Your task to perform on an android device: Search for alienware area 51 on amazon.com, select the first entry, add it to the cart, then select checkout. Image 0: 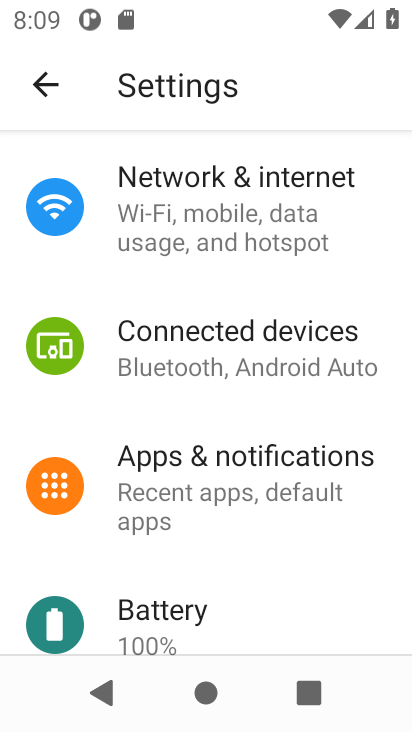
Step 0: press home button
Your task to perform on an android device: Search for alienware area 51 on amazon.com, select the first entry, add it to the cart, then select checkout. Image 1: 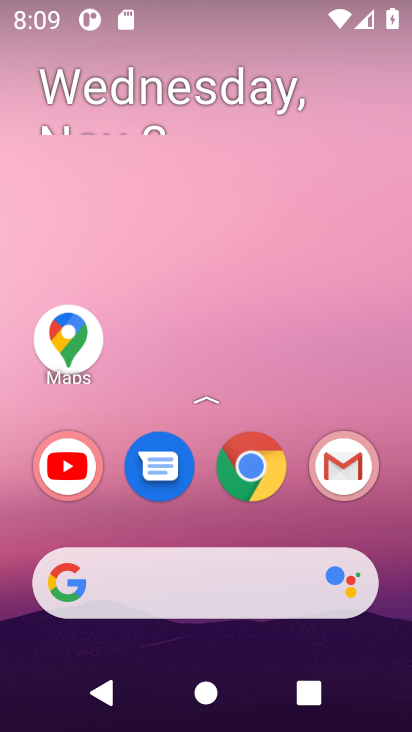
Step 1: click (220, 574)
Your task to perform on an android device: Search for alienware area 51 on amazon.com, select the first entry, add it to the cart, then select checkout. Image 2: 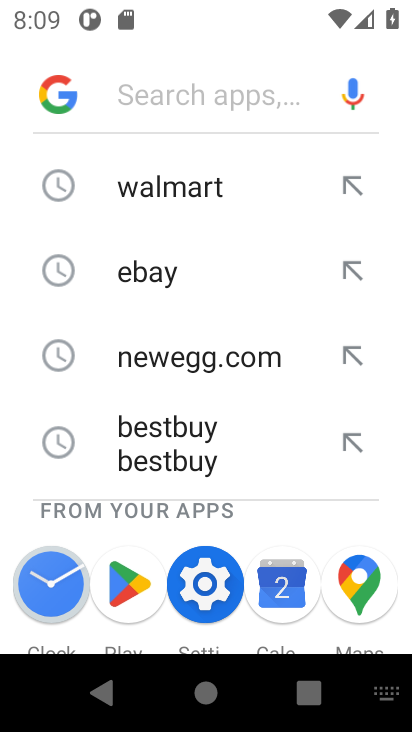
Step 2: type "amazon.com"
Your task to perform on an android device: Search for alienware area 51 on amazon.com, select the first entry, add it to the cart, then select checkout. Image 3: 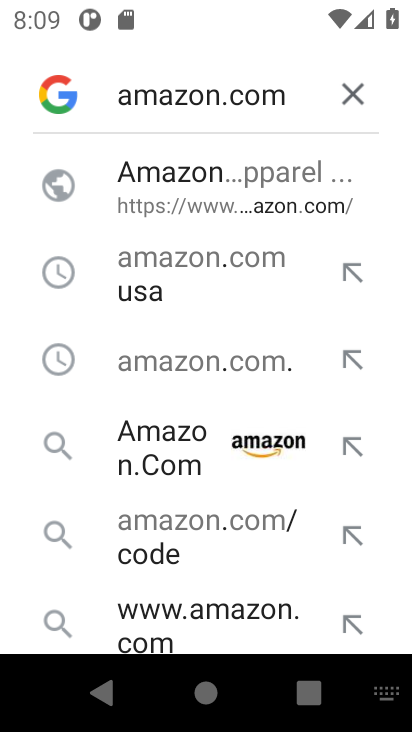
Step 3: type ""
Your task to perform on an android device: Search for alienware area 51 on amazon.com, select the first entry, add it to the cart, then select checkout. Image 4: 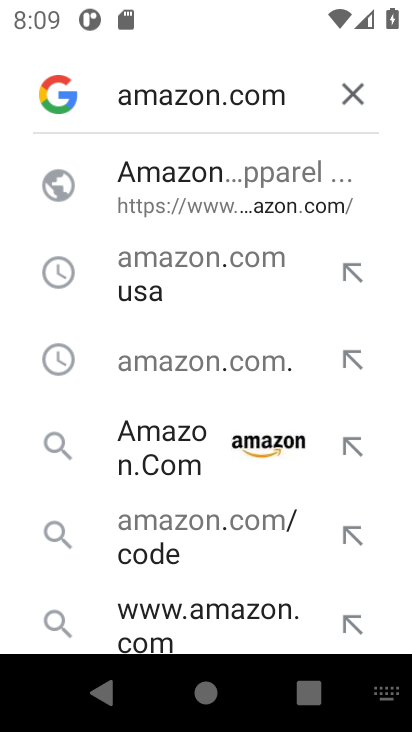
Step 4: click (226, 198)
Your task to perform on an android device: Search for alienware area 51 on amazon.com, select the first entry, add it to the cart, then select checkout. Image 5: 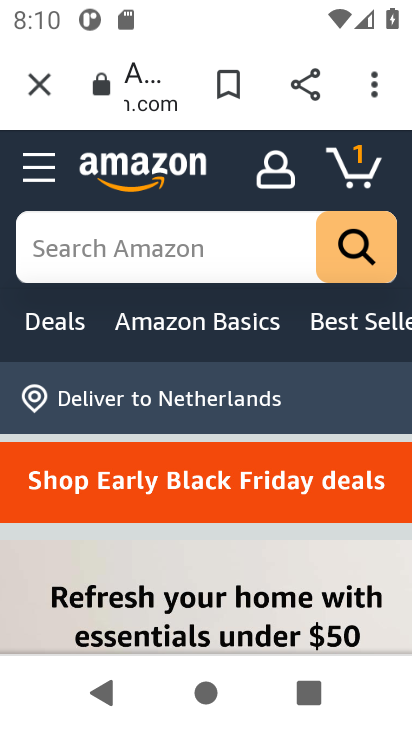
Step 5: click (111, 217)
Your task to perform on an android device: Search for alienware area 51 on amazon.com, select the first entry, add it to the cart, then select checkout. Image 6: 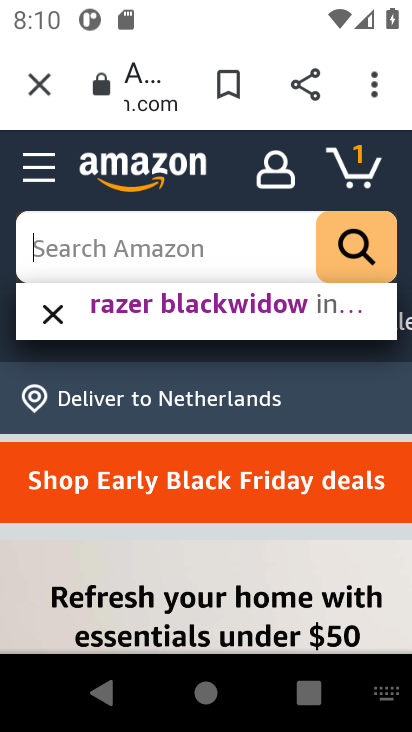
Step 6: type "alienware area 51"
Your task to perform on an android device: Search for alienware area 51 on amazon.com, select the first entry, add it to the cart, then select checkout. Image 7: 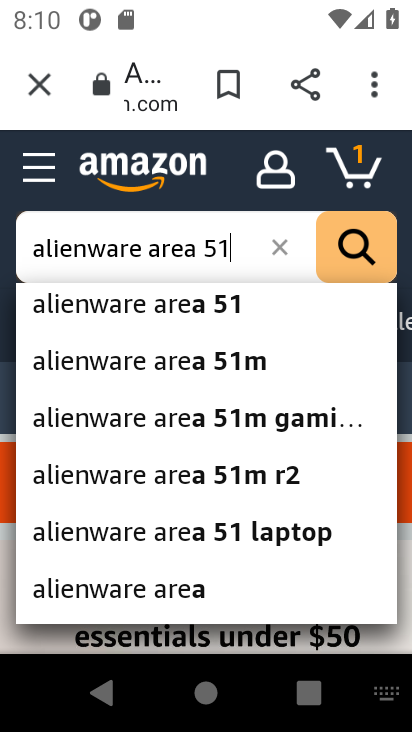
Step 7: type ""
Your task to perform on an android device: Search for alienware area 51 on amazon.com, select the first entry, add it to the cart, then select checkout. Image 8: 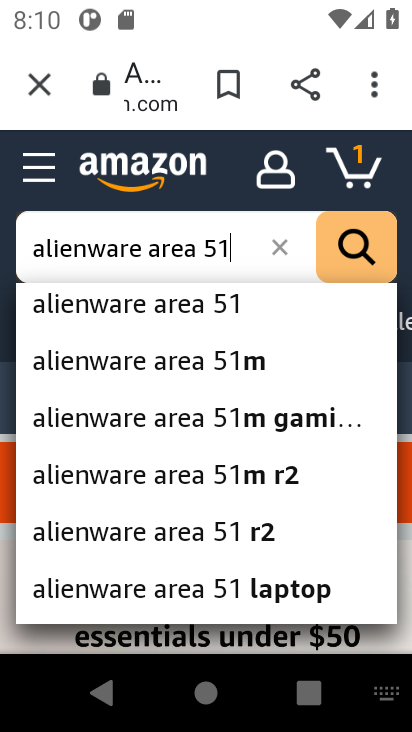
Step 8: click (231, 308)
Your task to perform on an android device: Search for alienware area 51 on amazon.com, select the first entry, add it to the cart, then select checkout. Image 9: 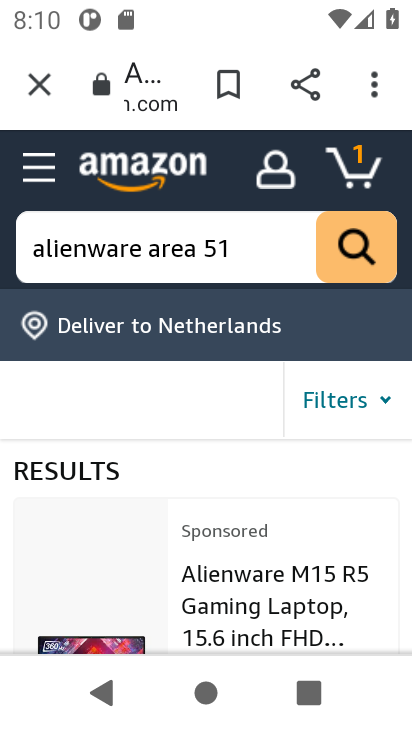
Step 9: drag from (276, 552) to (253, 343)
Your task to perform on an android device: Search for alienware area 51 on amazon.com, select the first entry, add it to the cart, then select checkout. Image 10: 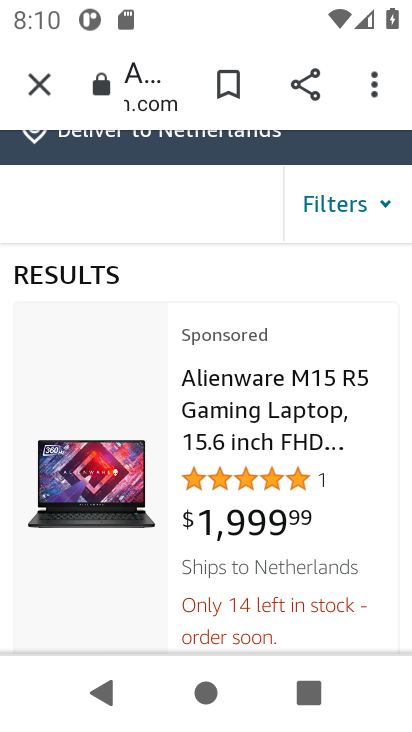
Step 10: click (257, 439)
Your task to perform on an android device: Search for alienware area 51 on amazon.com, select the first entry, add it to the cart, then select checkout. Image 11: 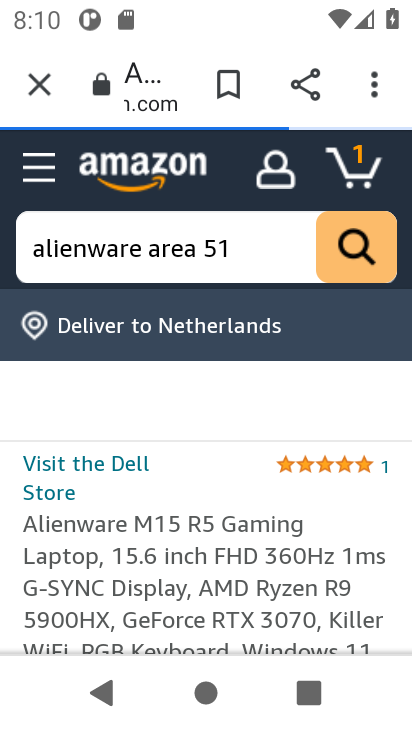
Step 11: drag from (262, 550) to (252, 366)
Your task to perform on an android device: Search for alienware area 51 on amazon.com, select the first entry, add it to the cart, then select checkout. Image 12: 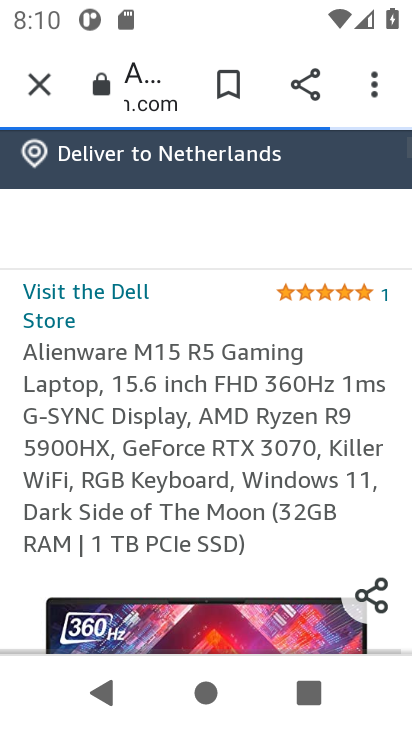
Step 12: drag from (271, 533) to (284, 394)
Your task to perform on an android device: Search for alienware area 51 on amazon.com, select the first entry, add it to the cart, then select checkout. Image 13: 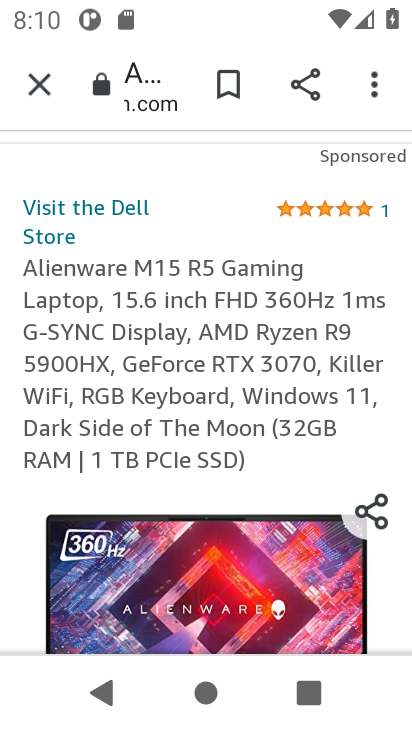
Step 13: drag from (270, 439) to (269, 286)
Your task to perform on an android device: Search for alienware area 51 on amazon.com, select the first entry, add it to the cart, then select checkout. Image 14: 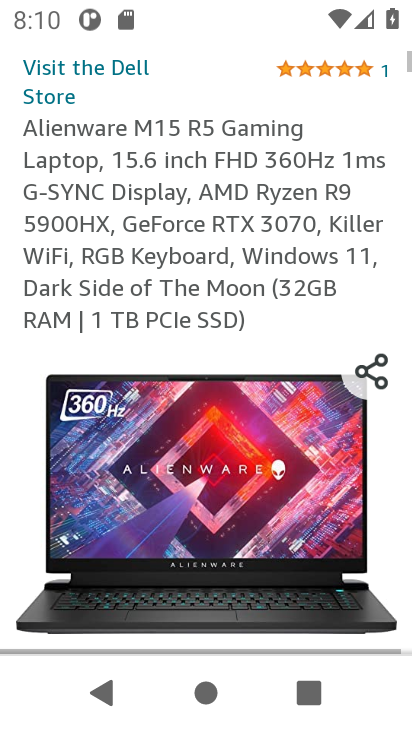
Step 14: drag from (279, 521) to (295, 346)
Your task to perform on an android device: Search for alienware area 51 on amazon.com, select the first entry, add it to the cart, then select checkout. Image 15: 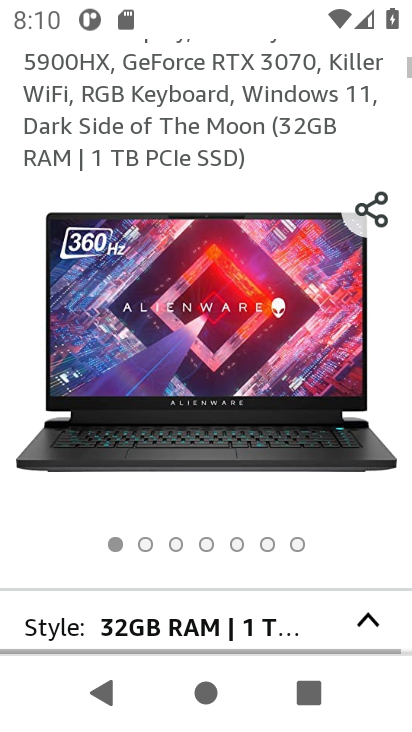
Step 15: drag from (269, 615) to (285, 436)
Your task to perform on an android device: Search for alienware area 51 on amazon.com, select the first entry, add it to the cart, then select checkout. Image 16: 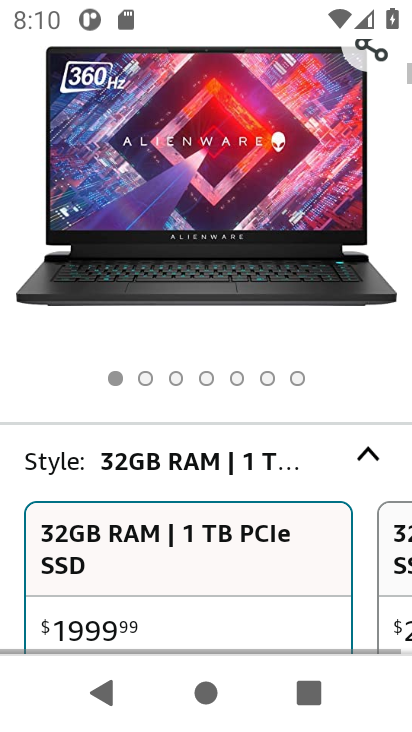
Step 16: drag from (283, 539) to (309, 409)
Your task to perform on an android device: Search for alienware area 51 on amazon.com, select the first entry, add it to the cart, then select checkout. Image 17: 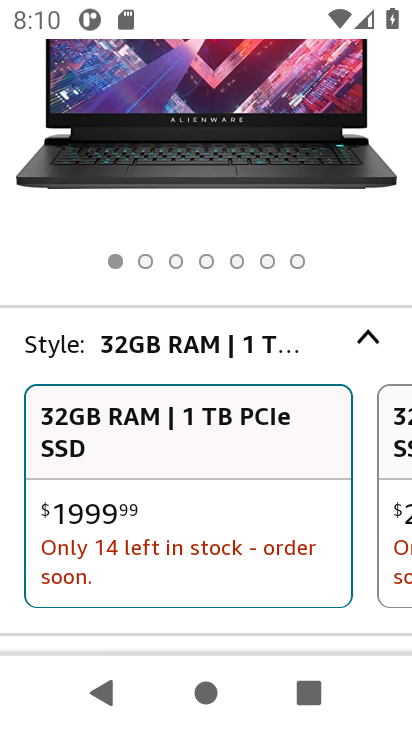
Step 17: drag from (307, 529) to (317, 245)
Your task to perform on an android device: Search for alienware area 51 on amazon.com, select the first entry, add it to the cart, then select checkout. Image 18: 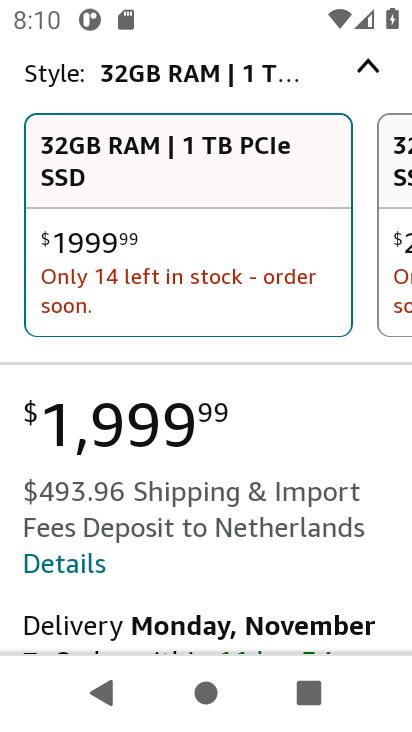
Step 18: drag from (263, 518) to (270, 212)
Your task to perform on an android device: Search for alienware area 51 on amazon.com, select the first entry, add it to the cart, then select checkout. Image 19: 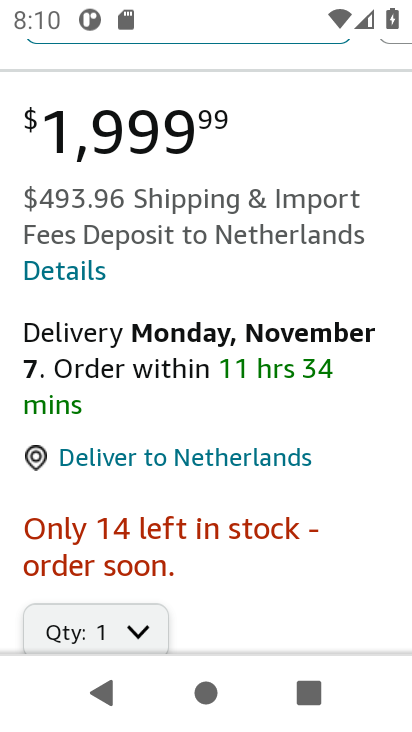
Step 19: drag from (253, 482) to (271, 97)
Your task to perform on an android device: Search for alienware area 51 on amazon.com, select the first entry, add it to the cart, then select checkout. Image 20: 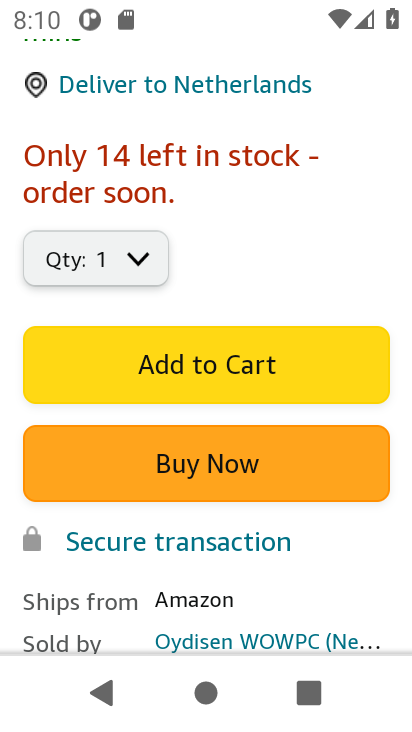
Step 20: click (247, 356)
Your task to perform on an android device: Search for alienware area 51 on amazon.com, select the first entry, add it to the cart, then select checkout. Image 21: 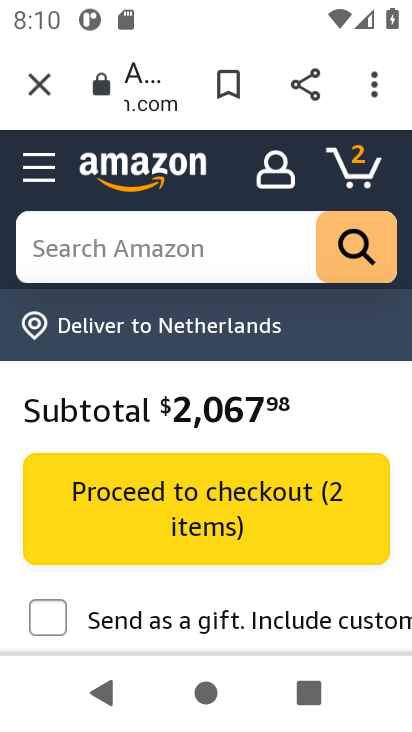
Step 21: click (346, 173)
Your task to perform on an android device: Search for alienware area 51 on amazon.com, select the first entry, add it to the cart, then select checkout. Image 22: 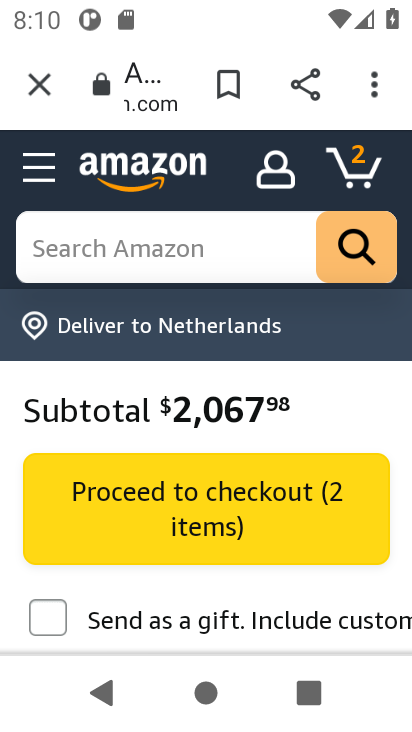
Step 22: click (358, 173)
Your task to perform on an android device: Search for alienware area 51 on amazon.com, select the first entry, add it to the cart, then select checkout. Image 23: 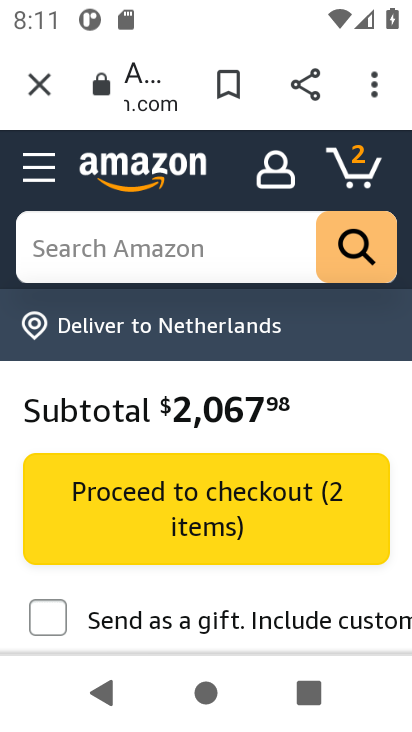
Step 23: click (360, 158)
Your task to perform on an android device: Search for alienware area 51 on amazon.com, select the first entry, add it to the cart, then select checkout. Image 24: 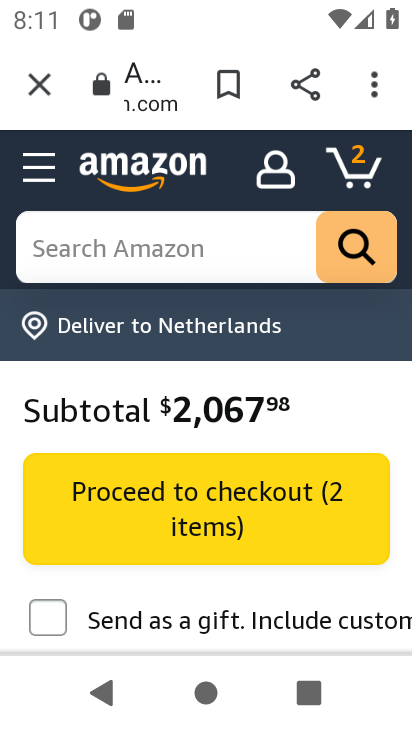
Step 24: drag from (363, 446) to (363, 189)
Your task to perform on an android device: Search for alienware area 51 on amazon.com, select the first entry, add it to the cart, then select checkout. Image 25: 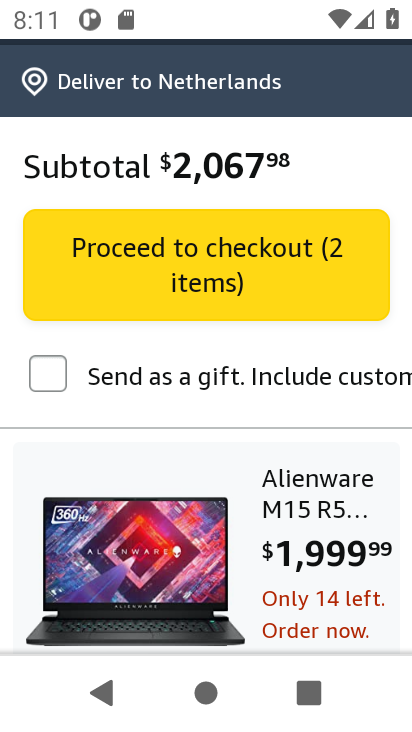
Step 25: drag from (351, 189) to (329, 486)
Your task to perform on an android device: Search for alienware area 51 on amazon.com, select the first entry, add it to the cart, then select checkout. Image 26: 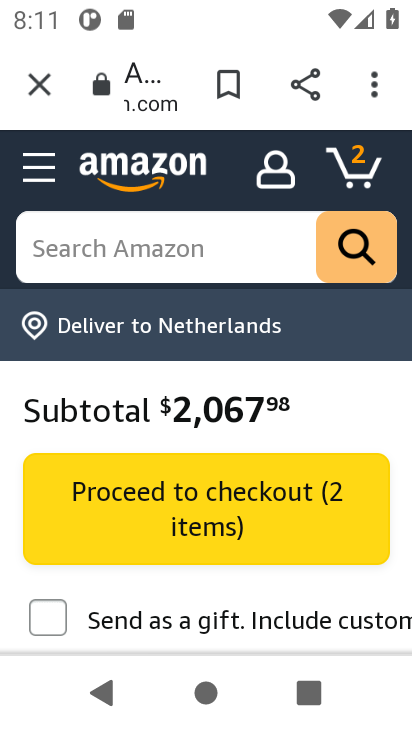
Step 26: click (369, 178)
Your task to perform on an android device: Search for alienware area 51 on amazon.com, select the first entry, add it to the cart, then select checkout. Image 27: 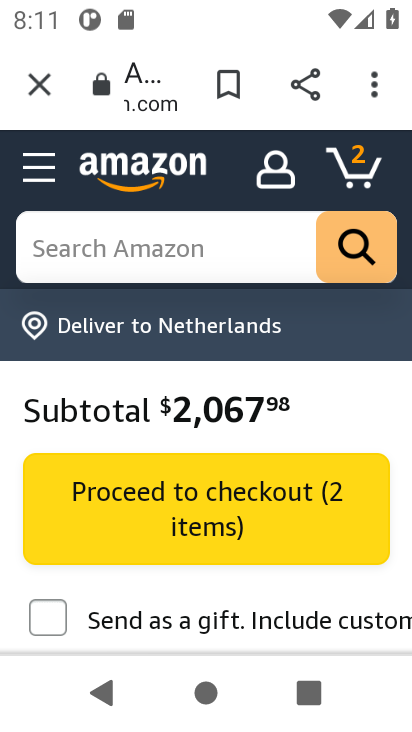
Step 27: click (348, 176)
Your task to perform on an android device: Search for alienware area 51 on amazon.com, select the first entry, add it to the cart, then select checkout. Image 28: 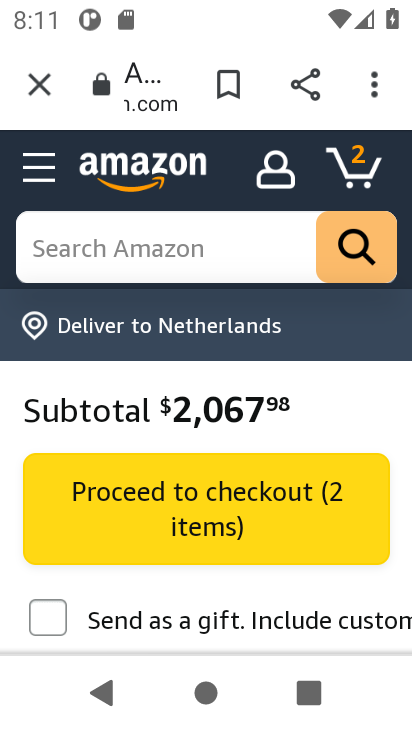
Step 28: drag from (373, 400) to (334, 160)
Your task to perform on an android device: Search for alienware area 51 on amazon.com, select the first entry, add it to the cart, then select checkout. Image 29: 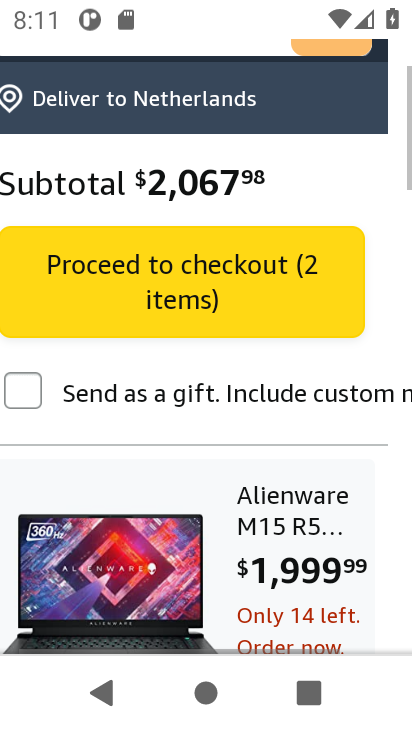
Step 29: drag from (302, 384) to (301, 163)
Your task to perform on an android device: Search for alienware area 51 on amazon.com, select the first entry, add it to the cart, then select checkout. Image 30: 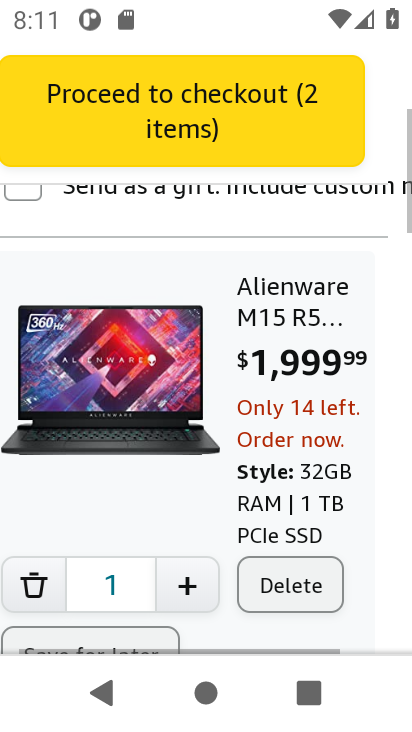
Step 30: drag from (303, 409) to (309, 260)
Your task to perform on an android device: Search for alienware area 51 on amazon.com, select the first entry, add it to the cart, then select checkout. Image 31: 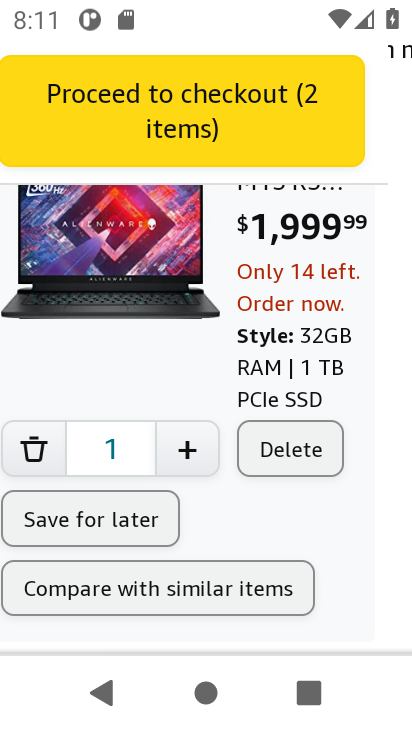
Step 31: drag from (262, 516) to (270, 567)
Your task to perform on an android device: Search for alienware area 51 on amazon.com, select the first entry, add it to the cart, then select checkout. Image 32: 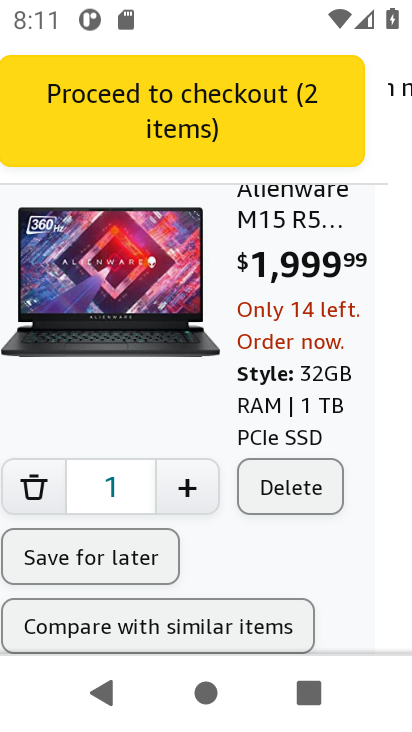
Step 32: drag from (343, 246) to (335, 464)
Your task to perform on an android device: Search for alienware area 51 on amazon.com, select the first entry, add it to the cart, then select checkout. Image 33: 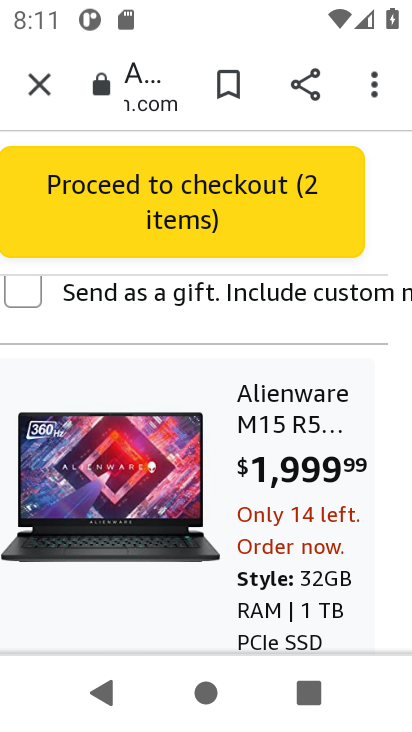
Step 33: drag from (308, 307) to (311, 361)
Your task to perform on an android device: Search for alienware area 51 on amazon.com, select the first entry, add it to the cart, then select checkout. Image 34: 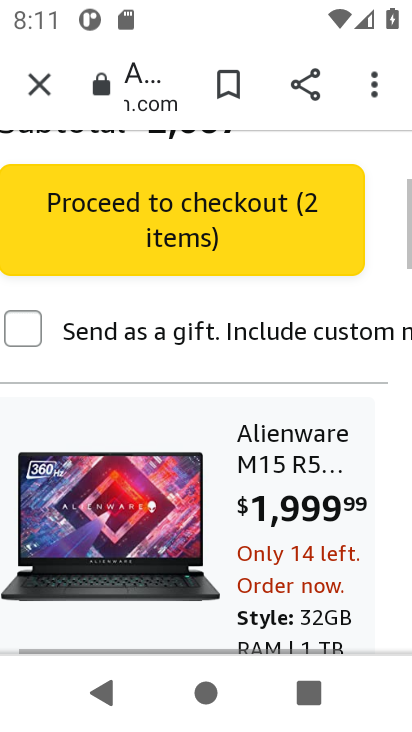
Step 34: click (282, 196)
Your task to perform on an android device: Search for alienware area 51 on amazon.com, select the first entry, add it to the cart, then select checkout. Image 35: 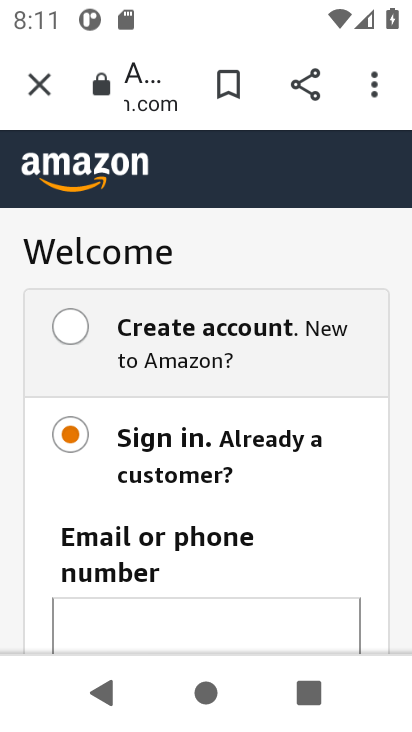
Step 35: task complete